Your task to perform on an android device: turn off notifications settings in the gmail app Image 0: 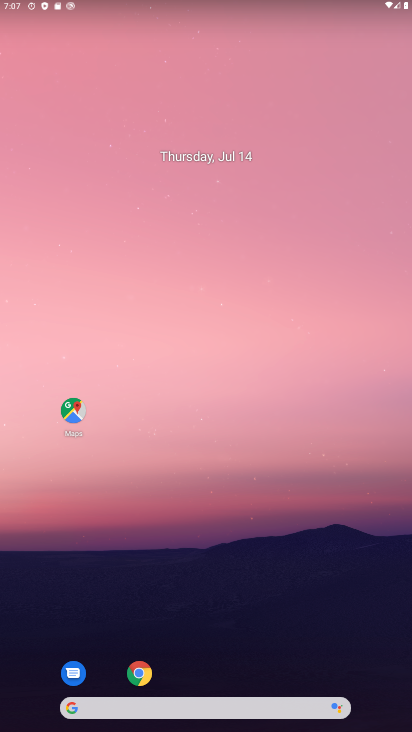
Step 0: drag from (225, 726) to (268, 272)
Your task to perform on an android device: turn off notifications settings in the gmail app Image 1: 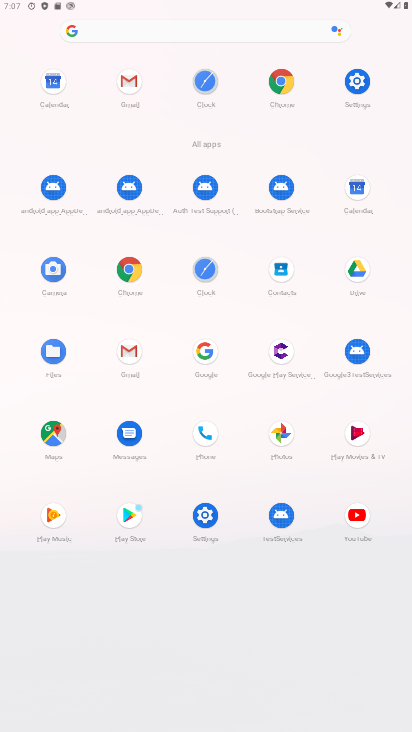
Step 1: click (122, 351)
Your task to perform on an android device: turn off notifications settings in the gmail app Image 2: 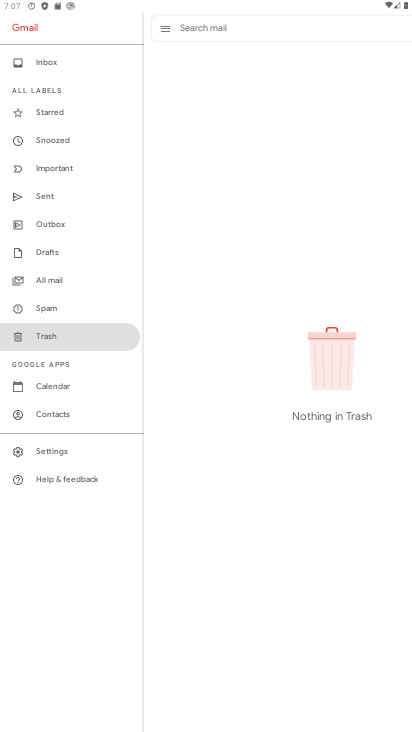
Step 2: click (56, 448)
Your task to perform on an android device: turn off notifications settings in the gmail app Image 3: 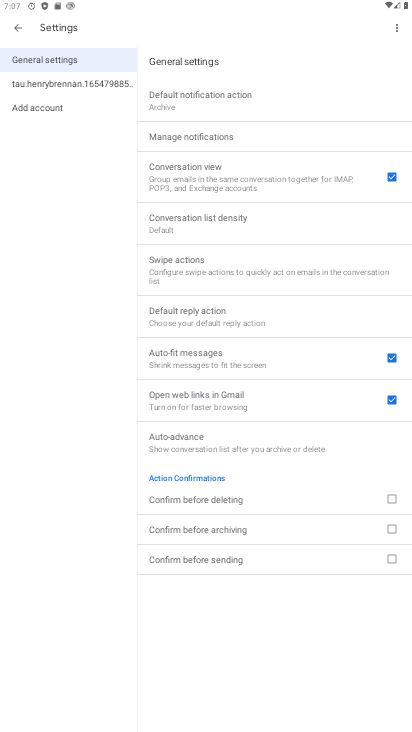
Step 3: click (41, 78)
Your task to perform on an android device: turn off notifications settings in the gmail app Image 4: 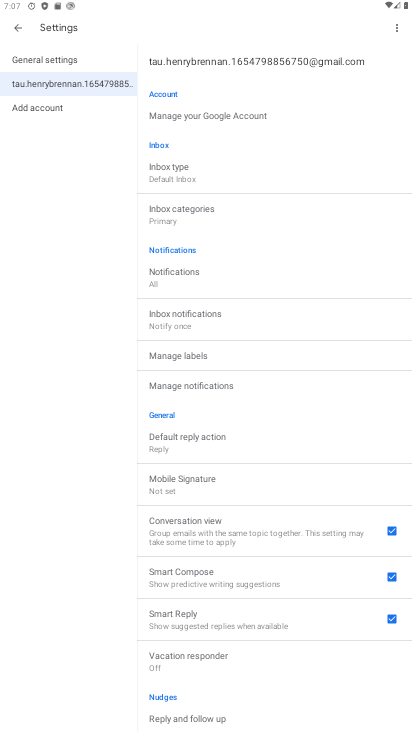
Step 4: click (210, 318)
Your task to perform on an android device: turn off notifications settings in the gmail app Image 5: 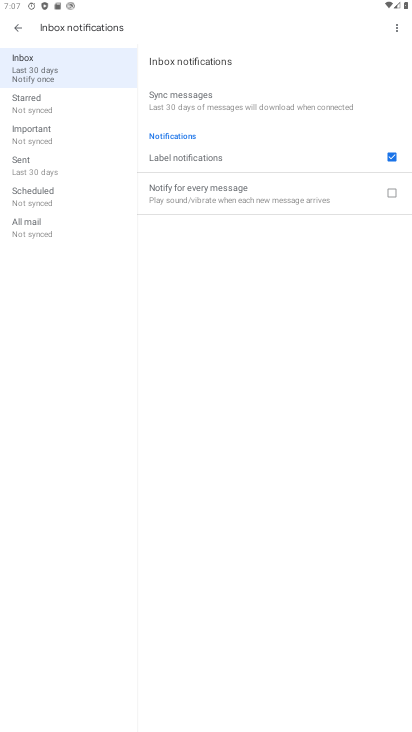
Step 5: click (203, 96)
Your task to perform on an android device: turn off notifications settings in the gmail app Image 6: 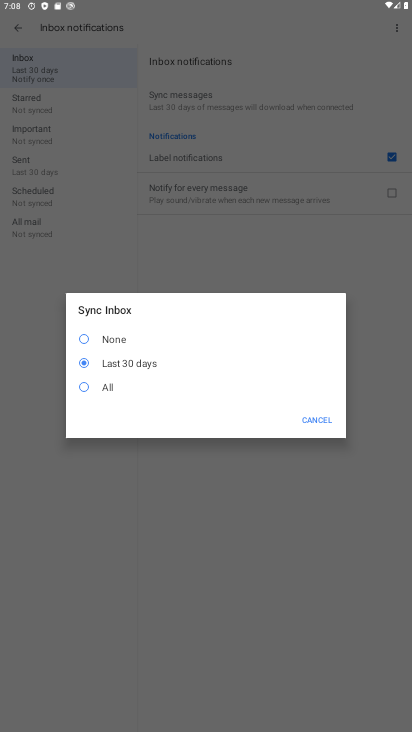
Step 6: click (147, 333)
Your task to perform on an android device: turn off notifications settings in the gmail app Image 7: 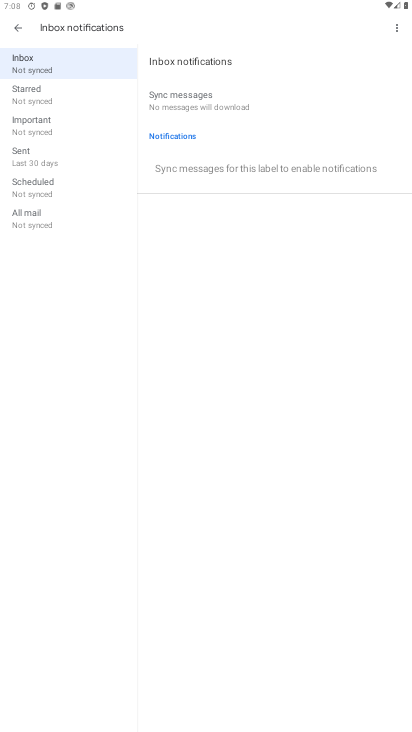
Step 7: task complete